Your task to perform on an android device: Add energizer triple a to the cart on walmart, then select checkout. Image 0: 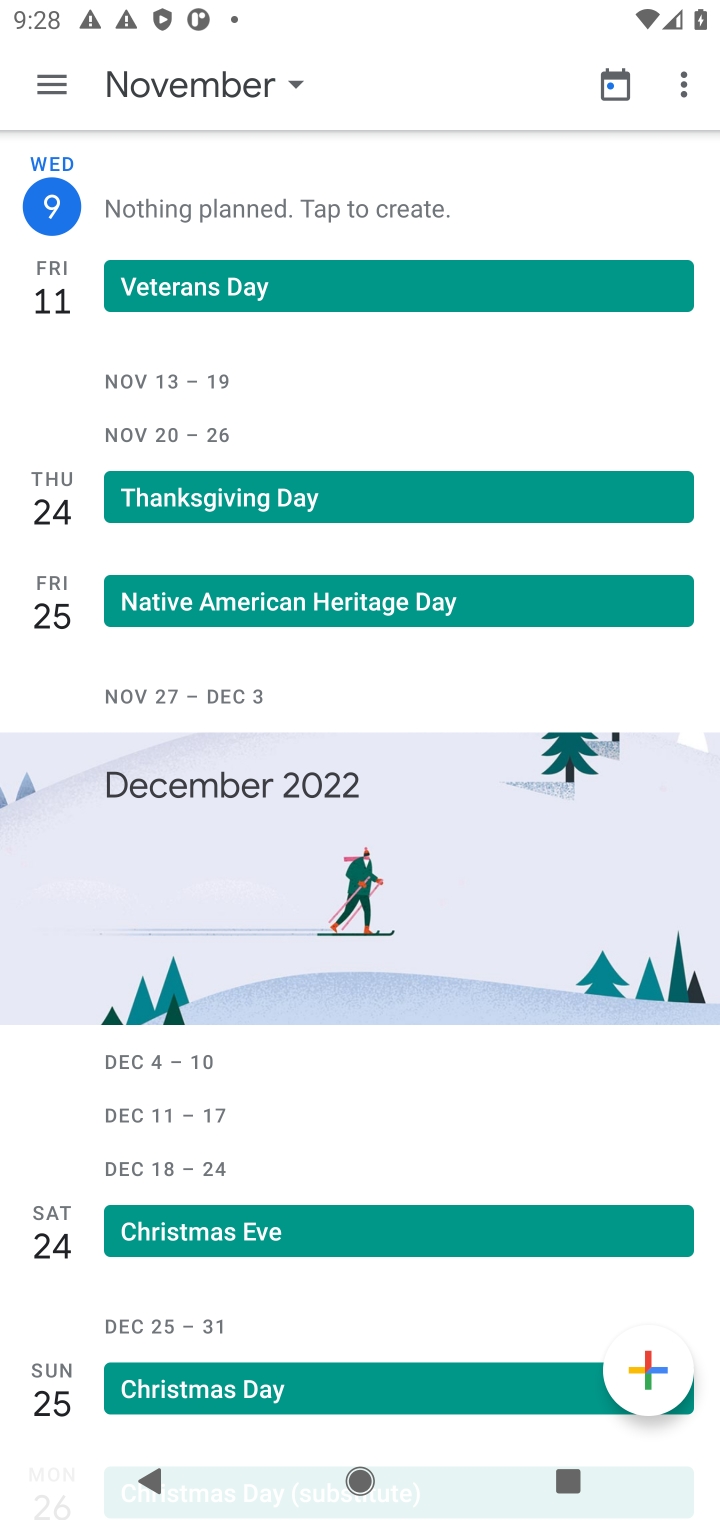
Step 0: press home button
Your task to perform on an android device: Add energizer triple a to the cart on walmart, then select checkout. Image 1: 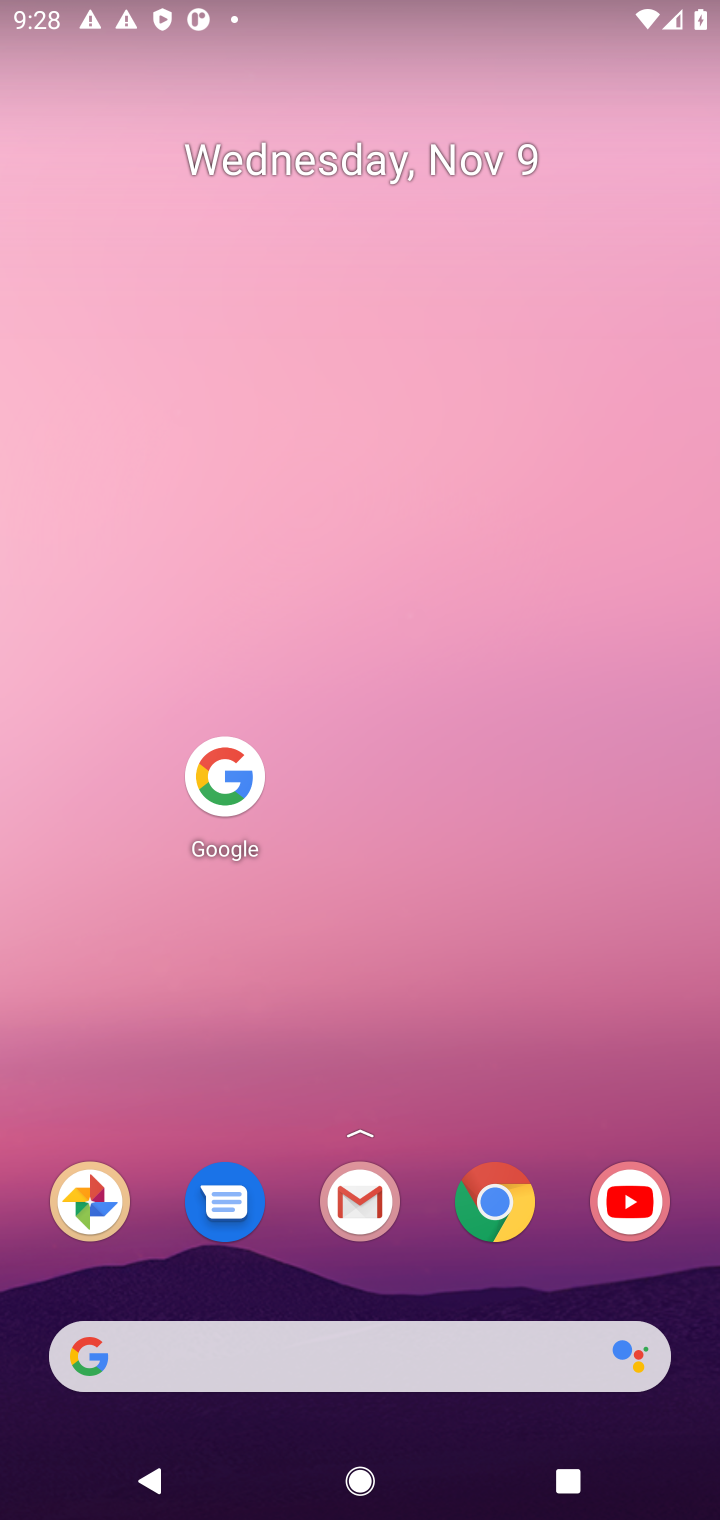
Step 1: click (226, 770)
Your task to perform on an android device: Add energizer triple a to the cart on walmart, then select checkout. Image 2: 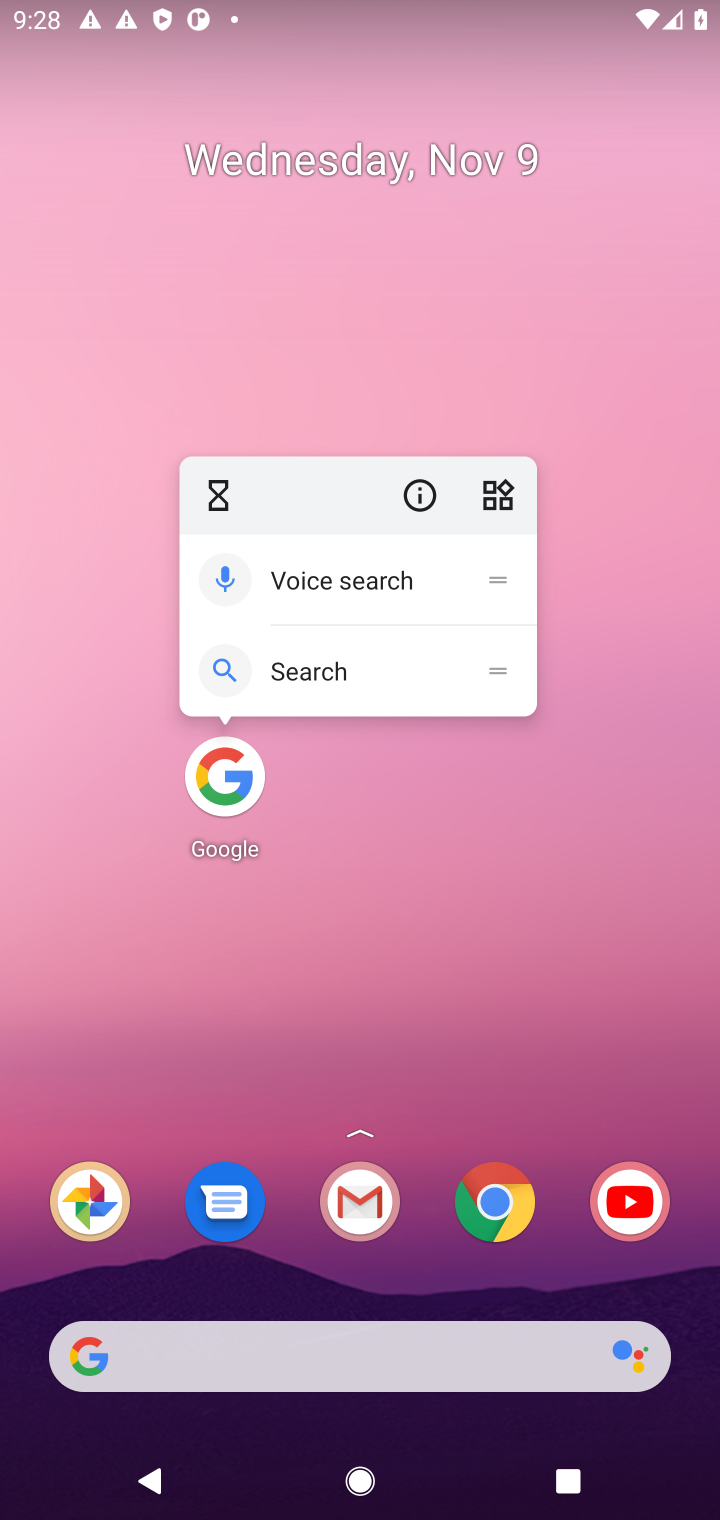
Step 2: click (224, 767)
Your task to perform on an android device: Add energizer triple a to the cart on walmart, then select checkout. Image 3: 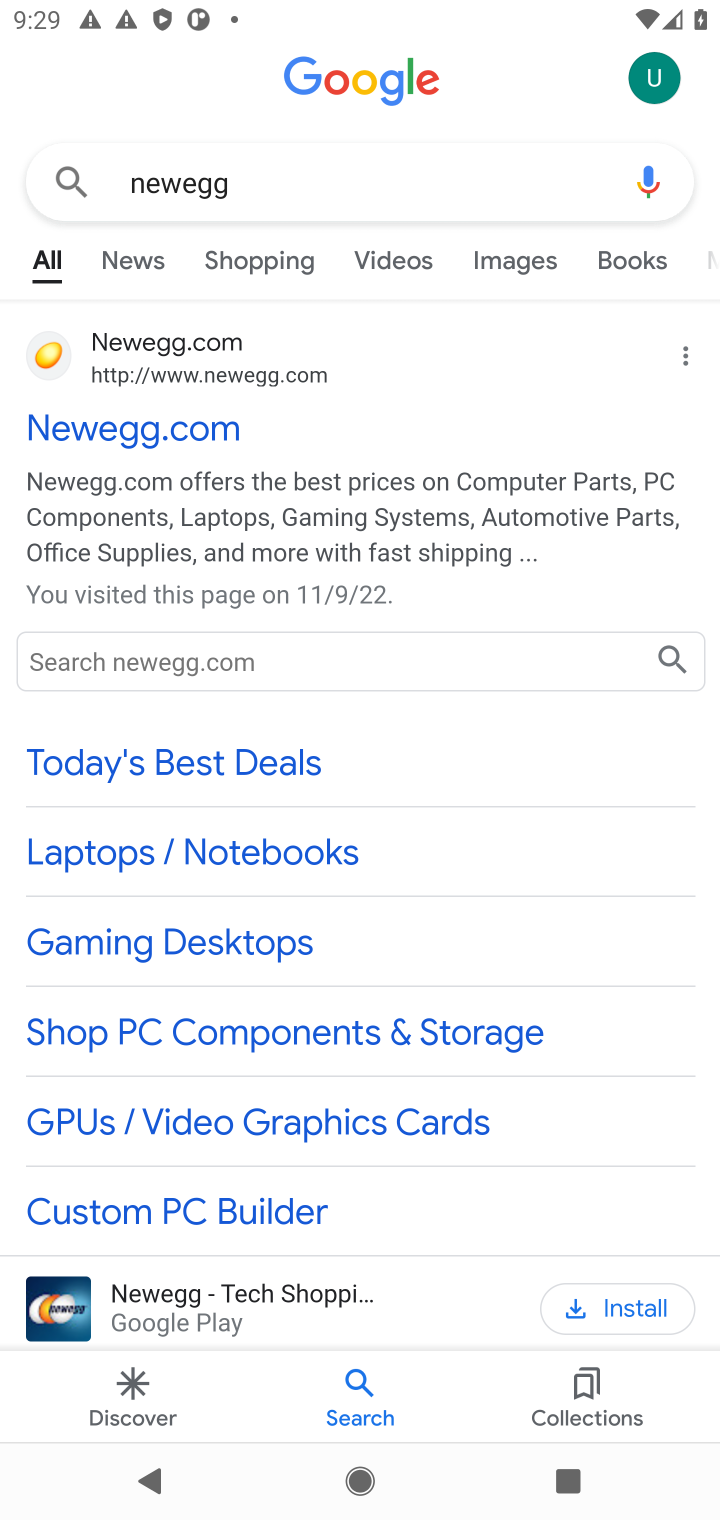
Step 3: click (279, 183)
Your task to perform on an android device: Add energizer triple a to the cart on walmart, then select checkout. Image 4: 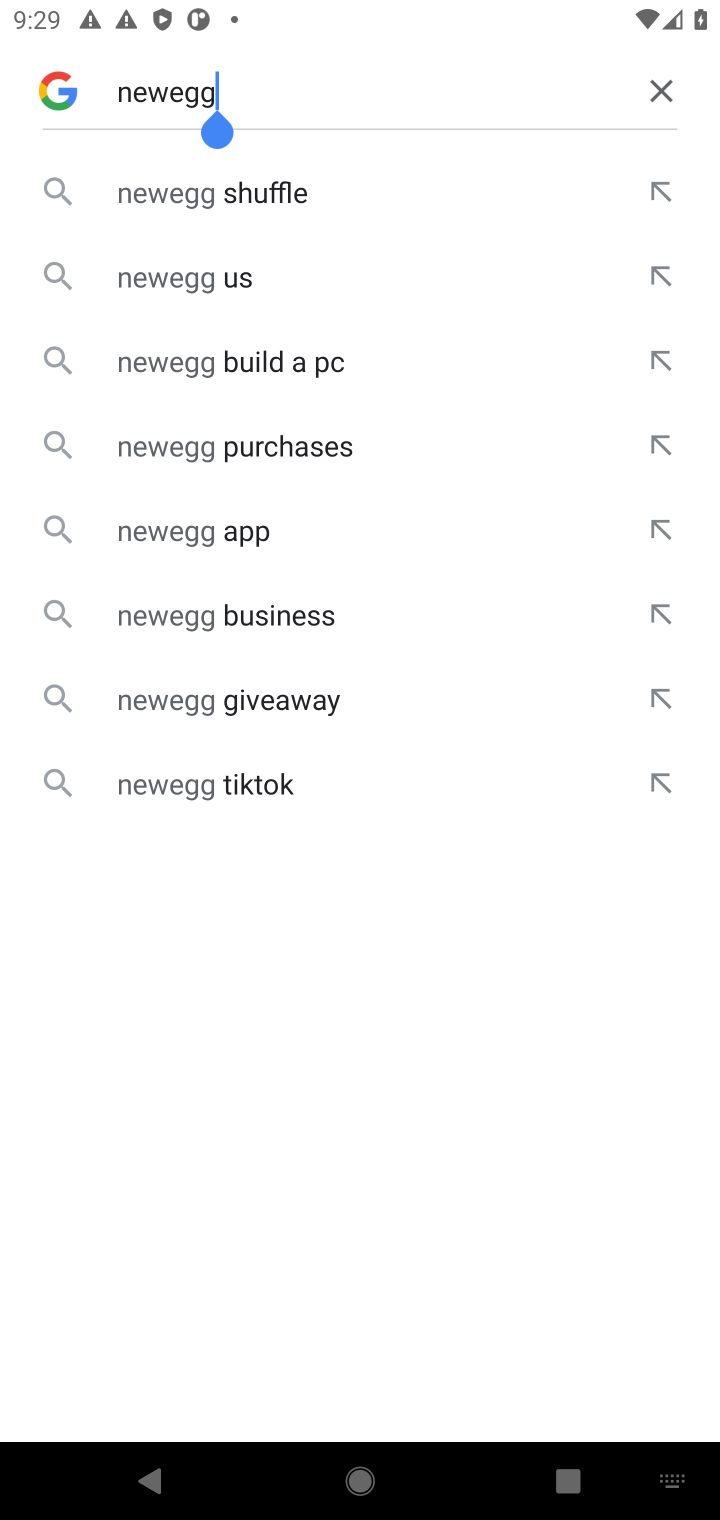
Step 4: click (665, 83)
Your task to perform on an android device: Add energizer triple a to the cart on walmart, then select checkout. Image 5: 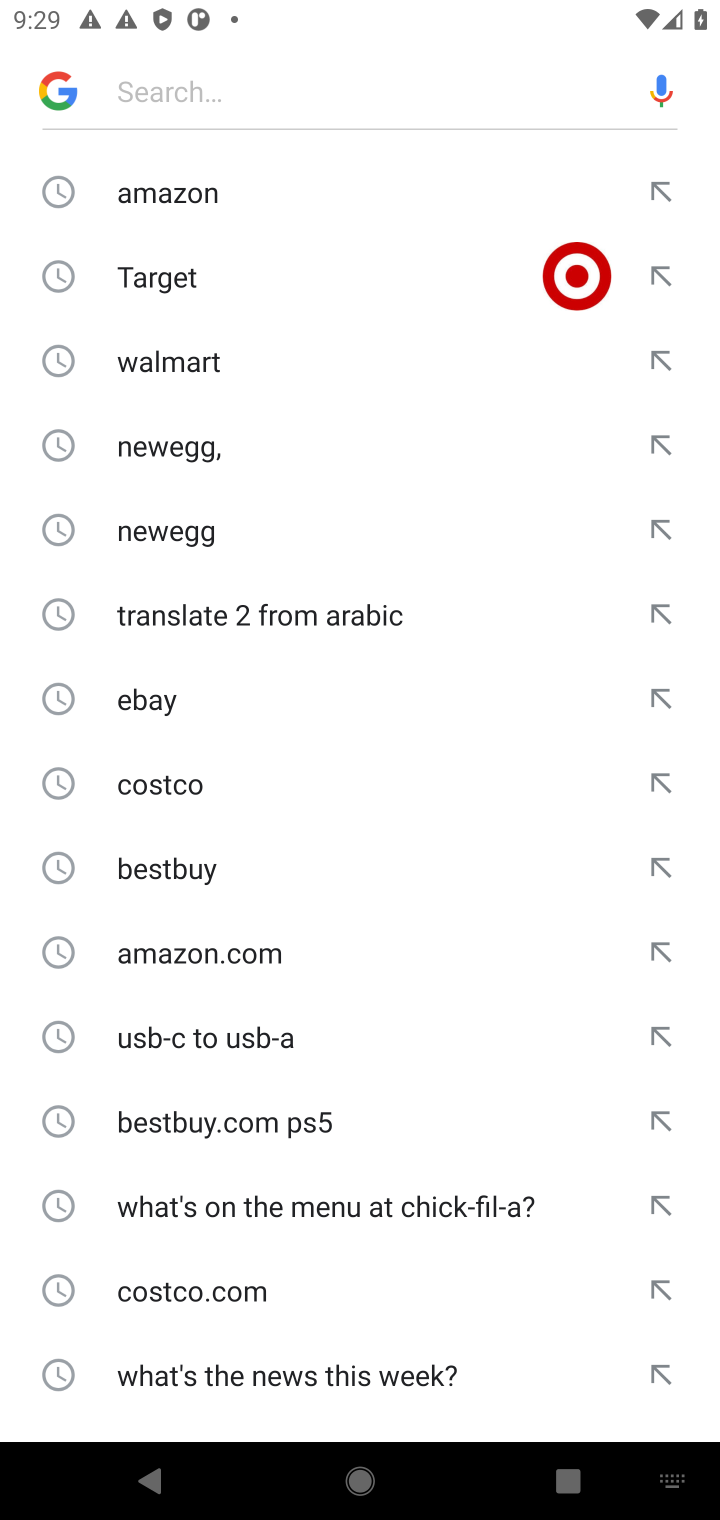
Step 5: click (125, 366)
Your task to perform on an android device: Add energizer triple a to the cart on walmart, then select checkout. Image 6: 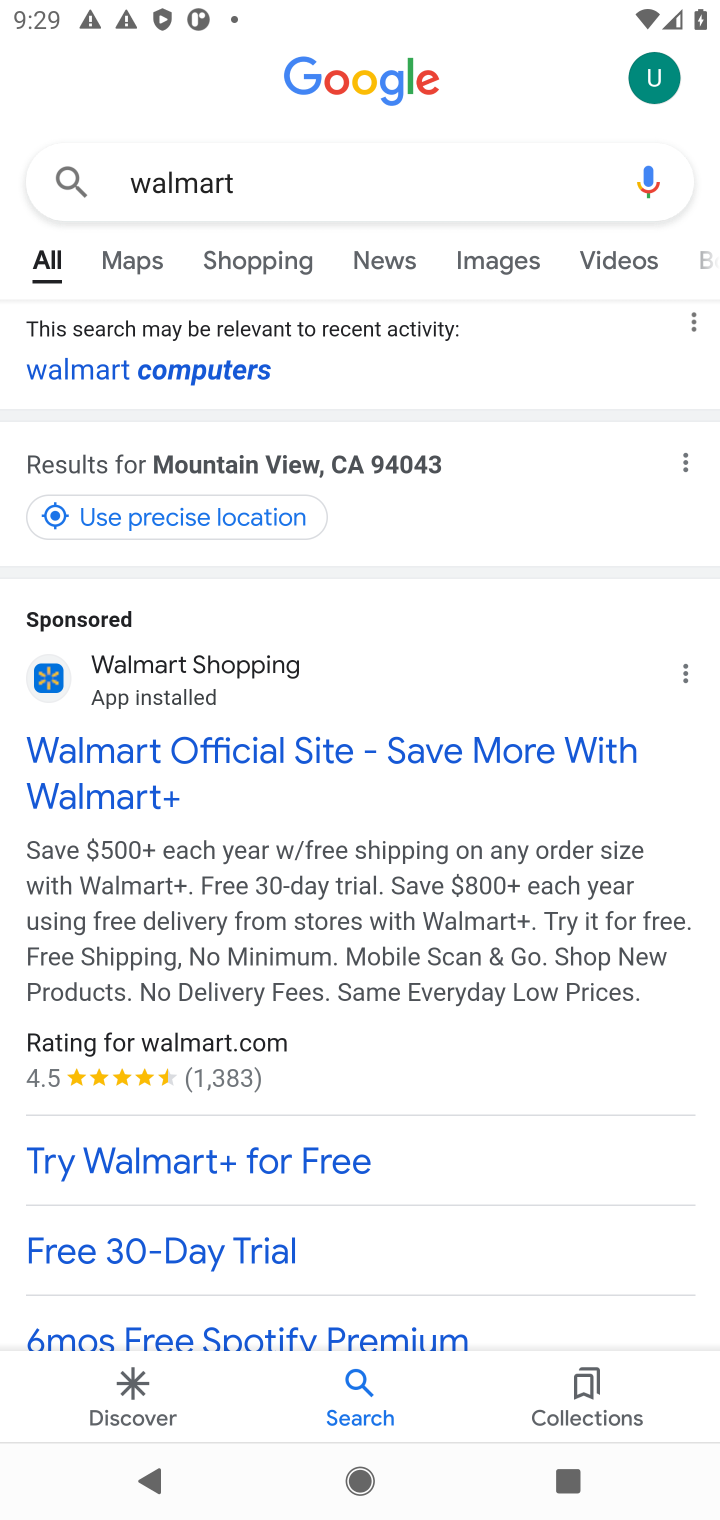
Step 6: drag from (290, 1036) to (414, 167)
Your task to perform on an android device: Add energizer triple a to the cart on walmart, then select checkout. Image 7: 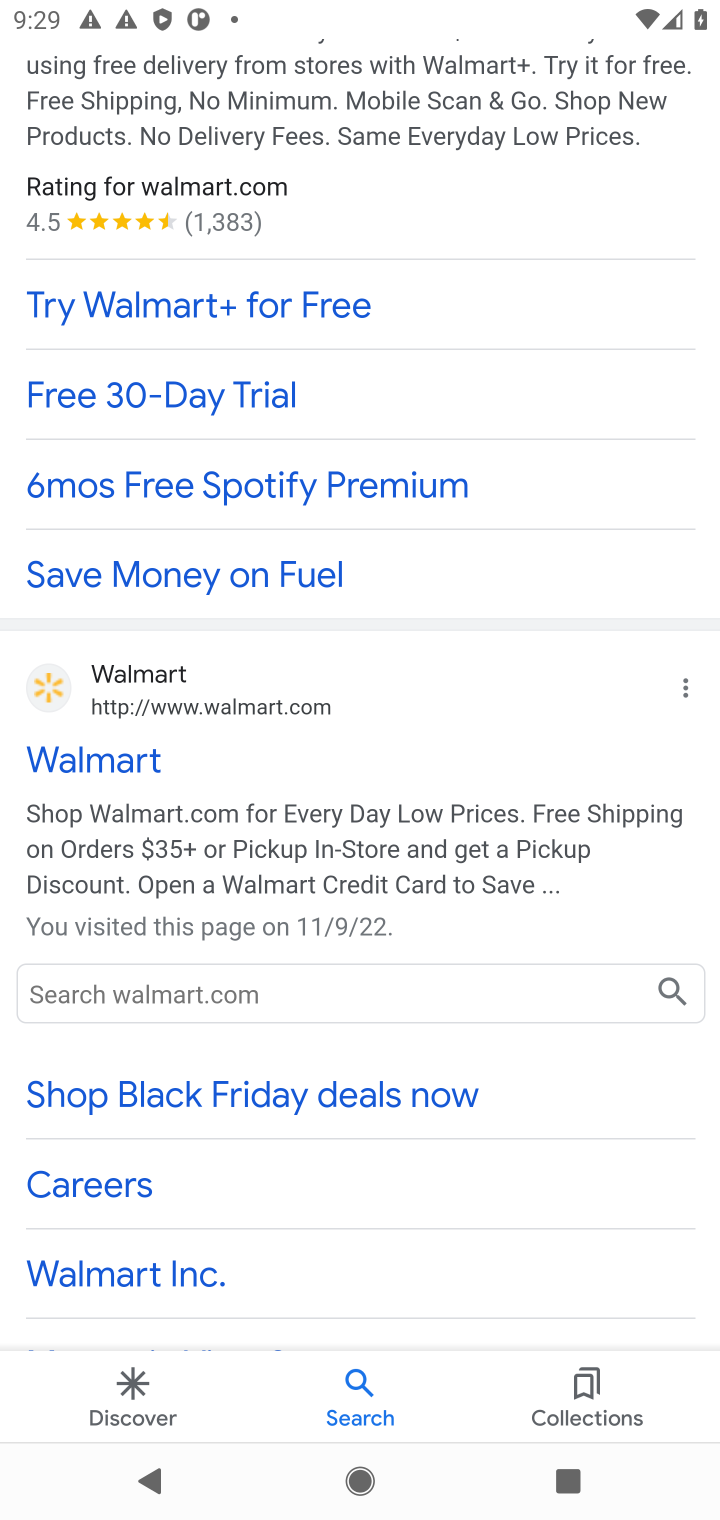
Step 7: click (102, 761)
Your task to perform on an android device: Add energizer triple a to the cart on walmart, then select checkout. Image 8: 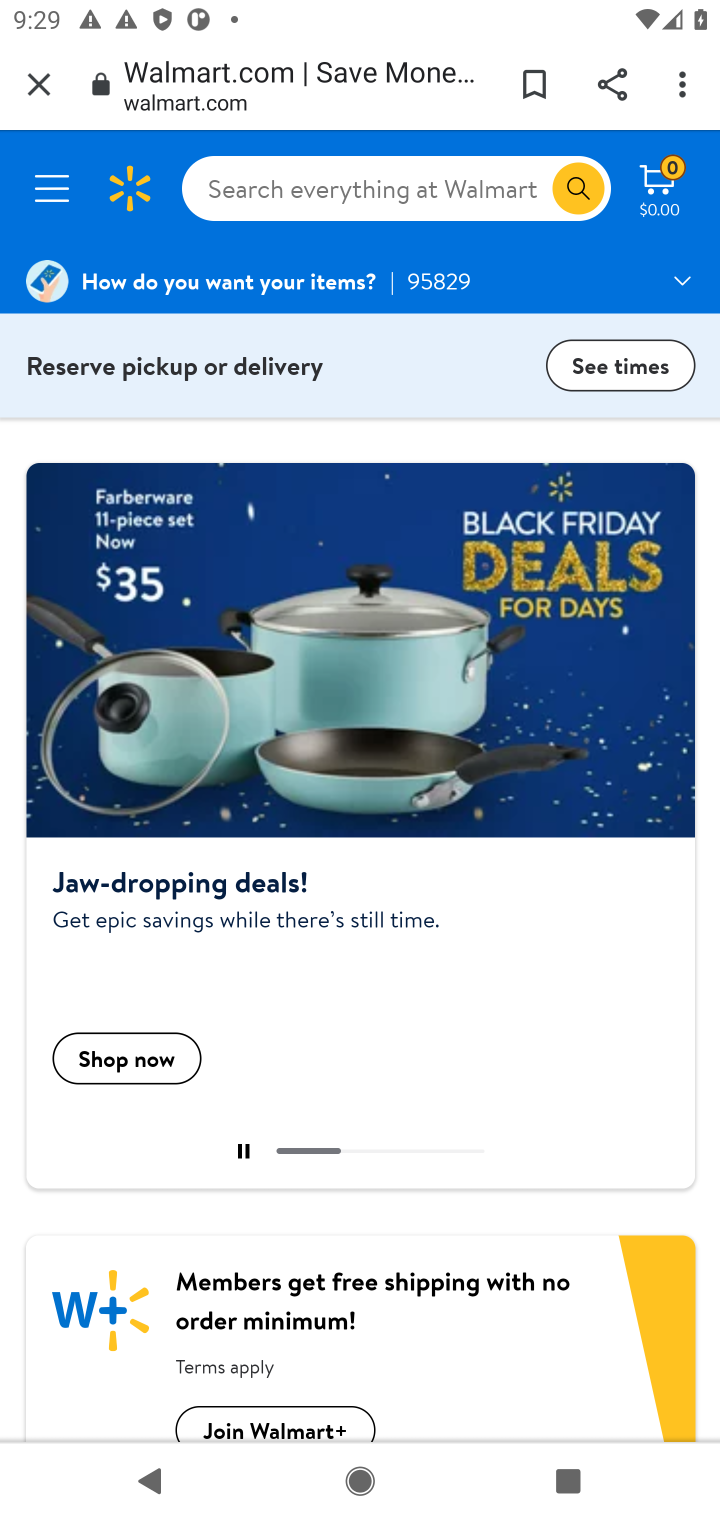
Step 8: click (309, 181)
Your task to perform on an android device: Add energizer triple a to the cart on walmart, then select checkout. Image 9: 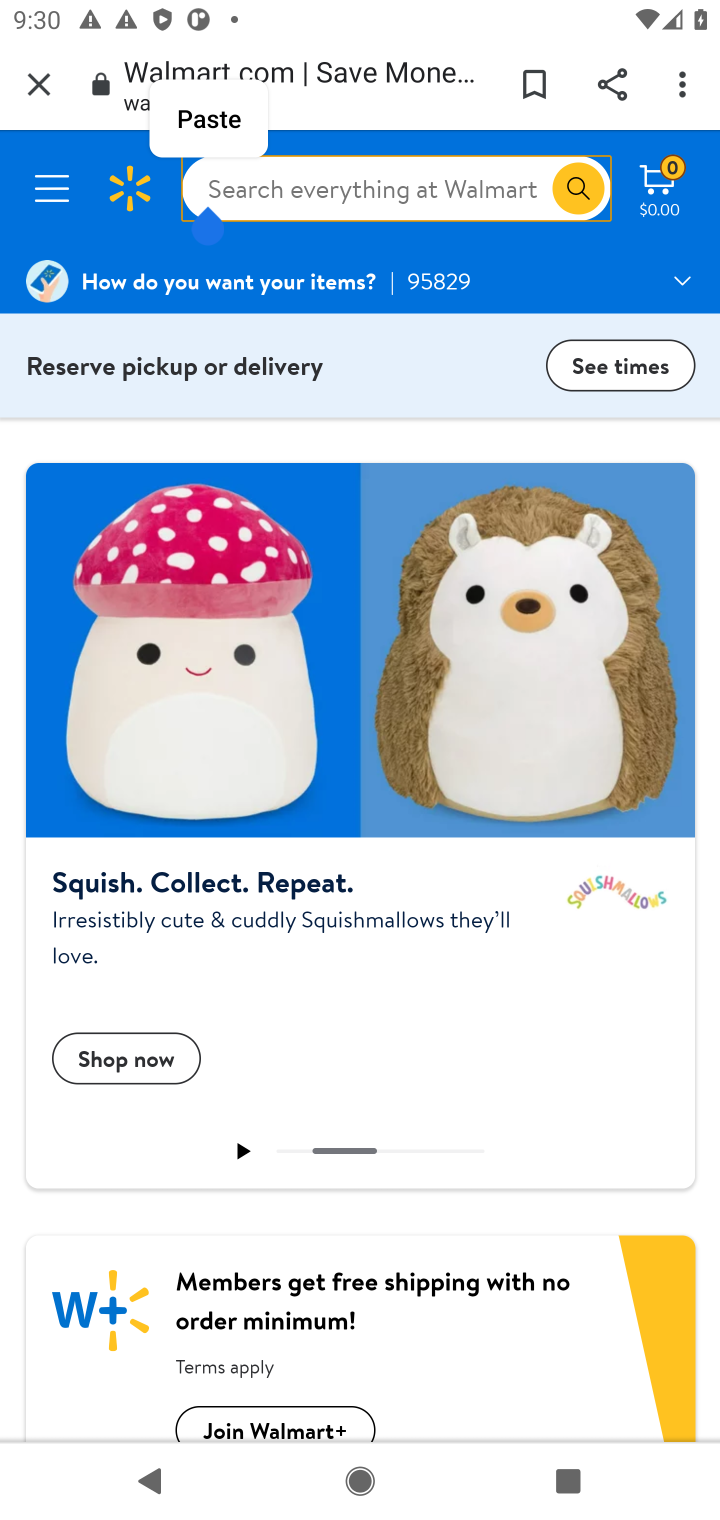
Step 9: type "energizer triple a"
Your task to perform on an android device: Add energizer triple a to the cart on walmart, then select checkout. Image 10: 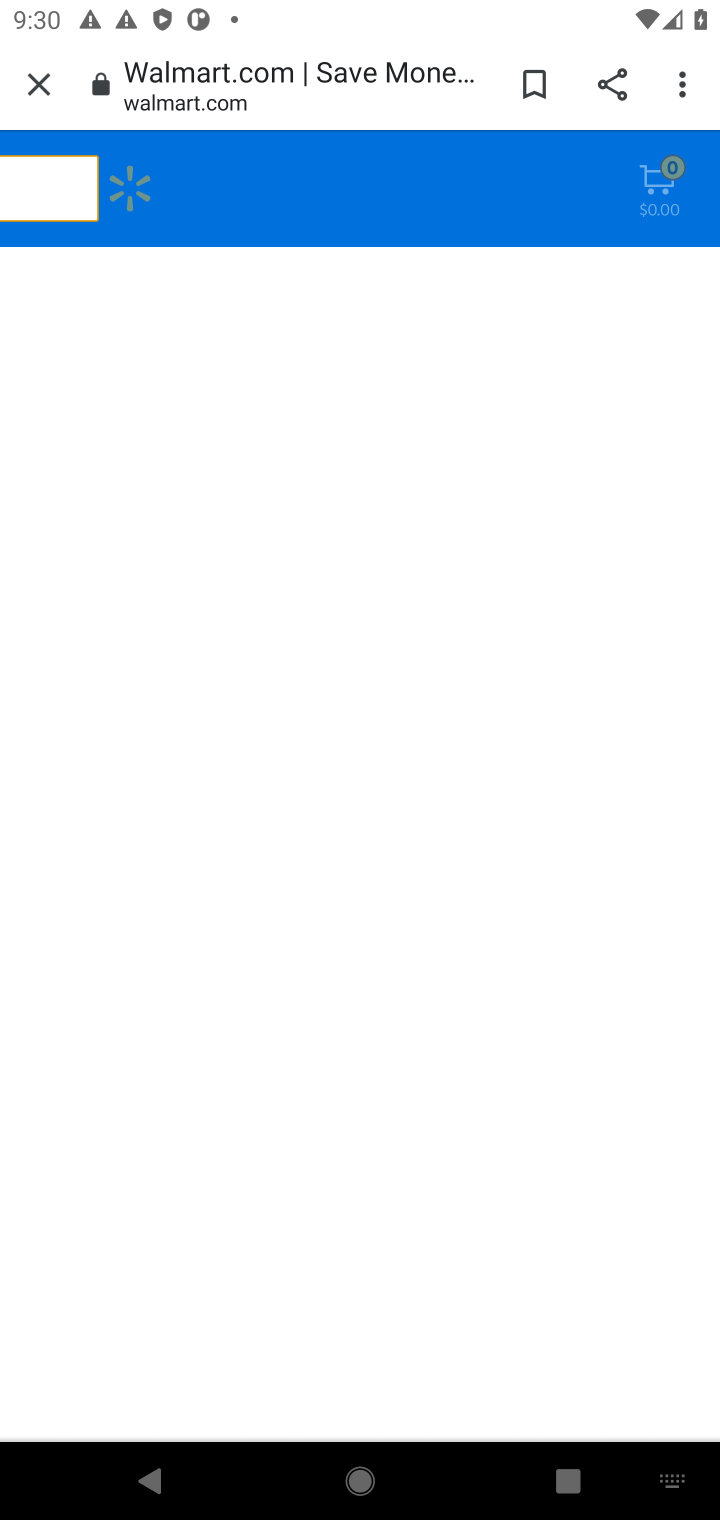
Step 10: press enter
Your task to perform on an android device: Add energizer triple a to the cart on walmart, then select checkout. Image 11: 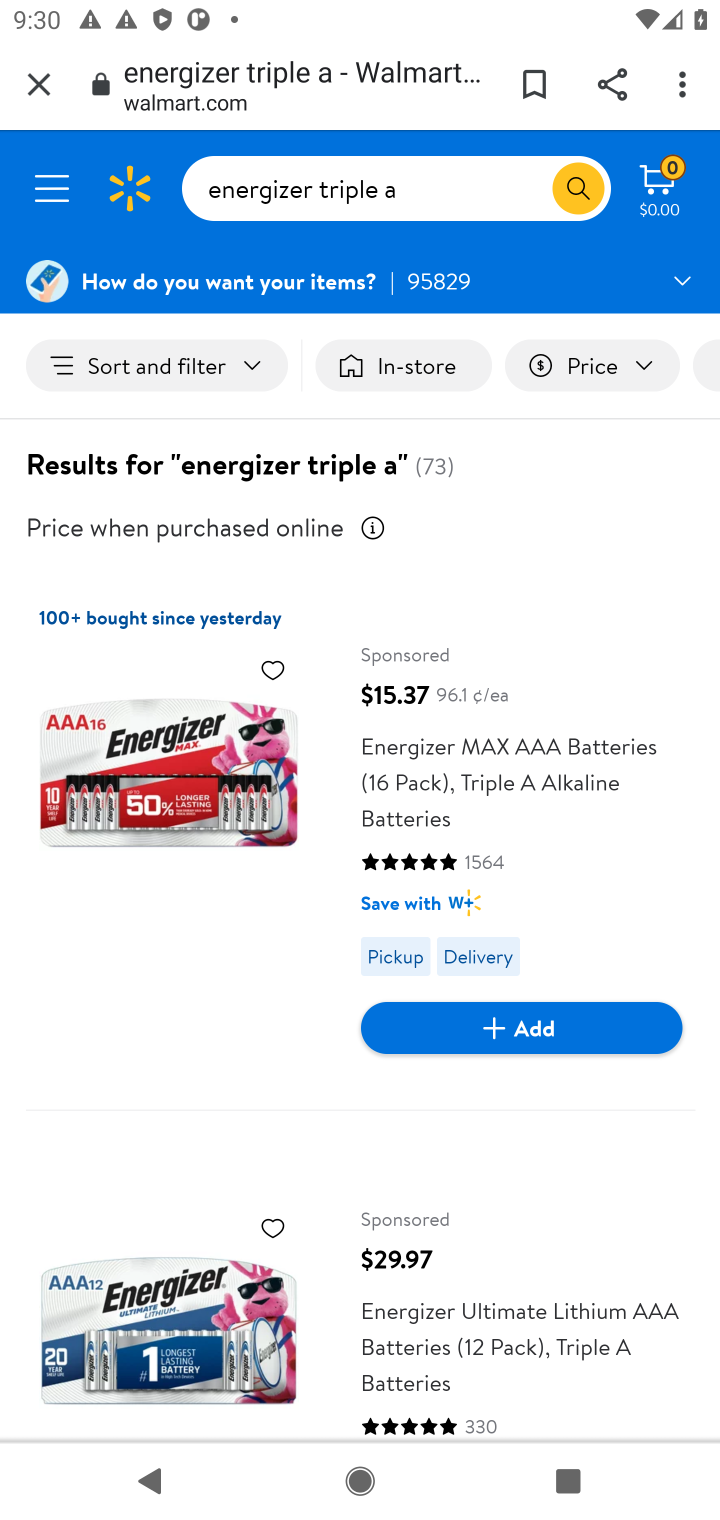
Step 11: task complete